Your task to perform on an android device: all mails in gmail Image 0: 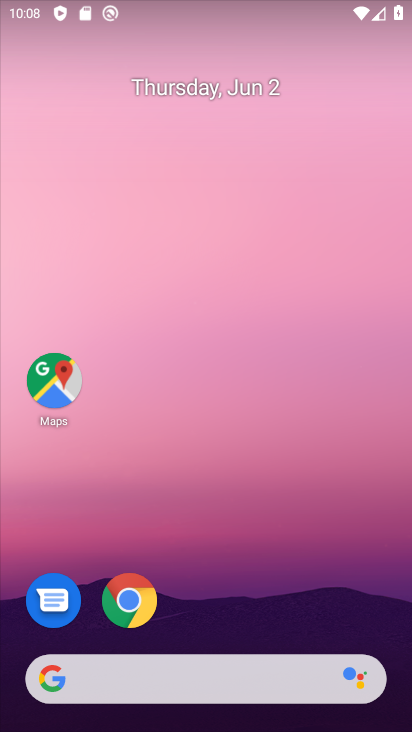
Step 0: drag from (234, 615) to (208, 90)
Your task to perform on an android device: all mails in gmail Image 1: 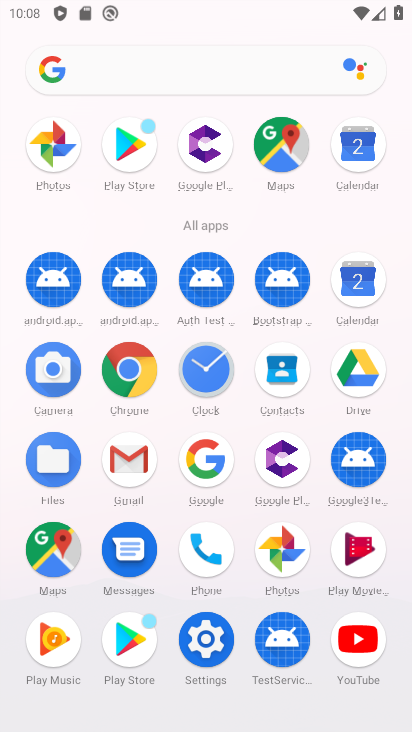
Step 1: click (129, 459)
Your task to perform on an android device: all mails in gmail Image 2: 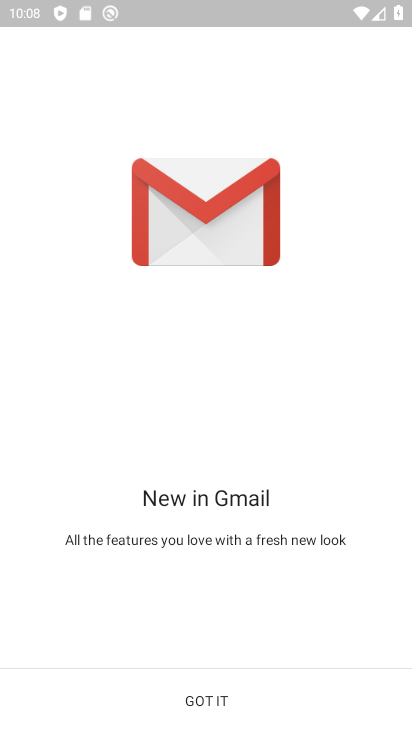
Step 2: click (208, 683)
Your task to perform on an android device: all mails in gmail Image 3: 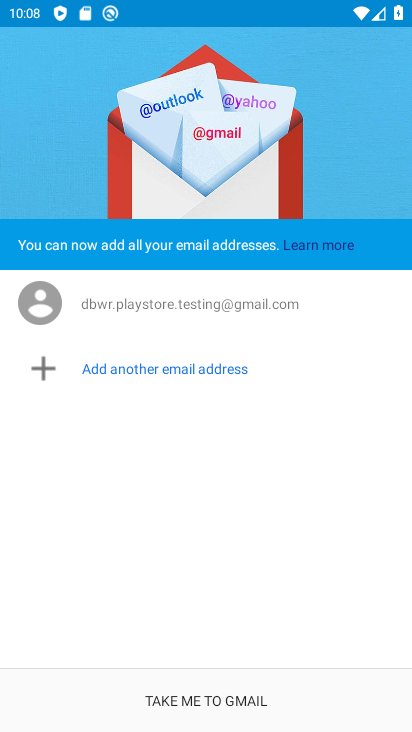
Step 3: click (209, 679)
Your task to perform on an android device: all mails in gmail Image 4: 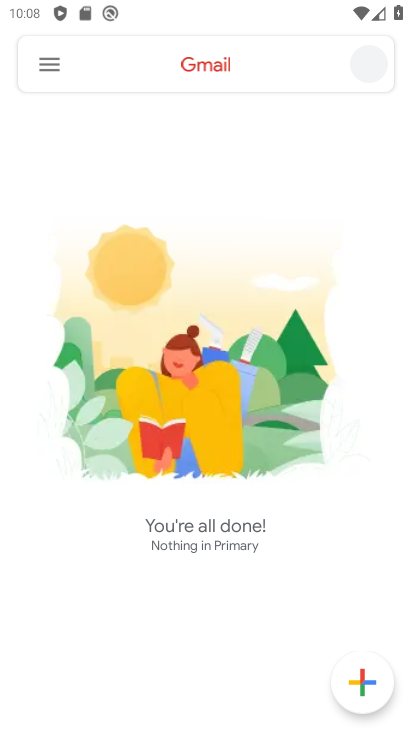
Step 4: click (45, 62)
Your task to perform on an android device: all mails in gmail Image 5: 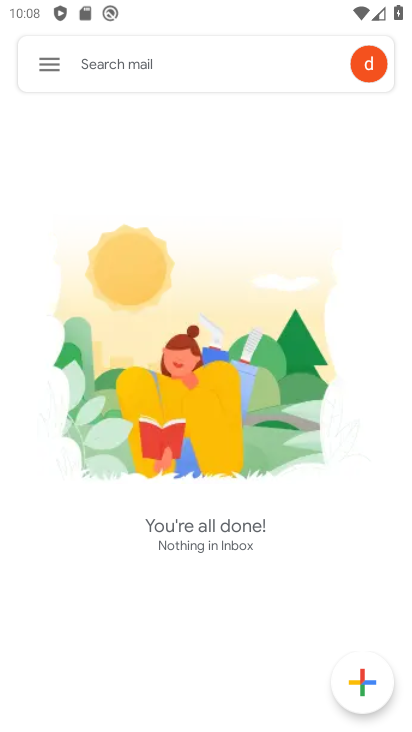
Step 5: click (44, 44)
Your task to perform on an android device: all mails in gmail Image 6: 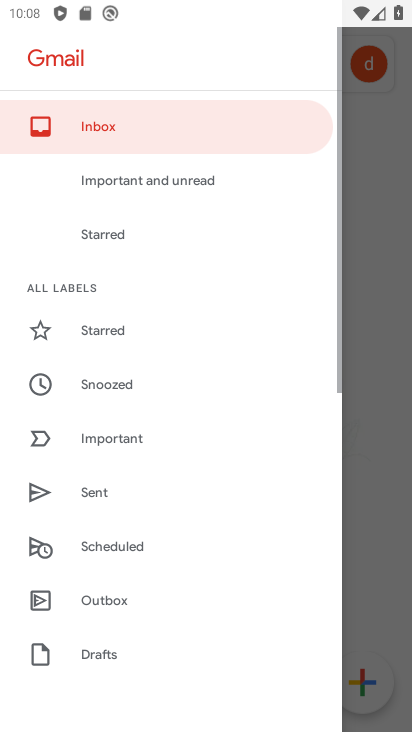
Step 6: drag from (134, 638) to (175, 99)
Your task to perform on an android device: all mails in gmail Image 7: 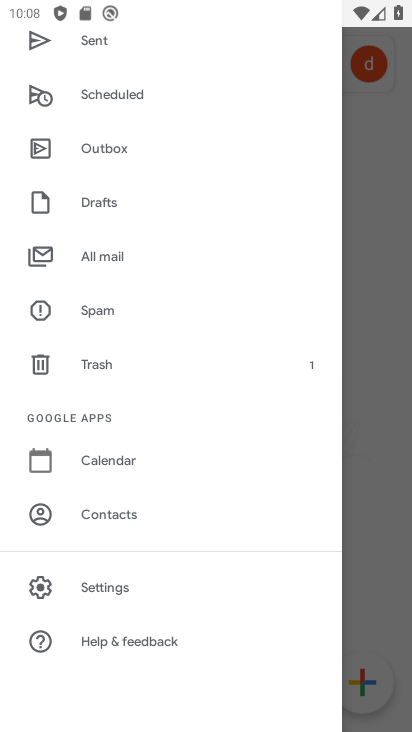
Step 7: click (127, 259)
Your task to perform on an android device: all mails in gmail Image 8: 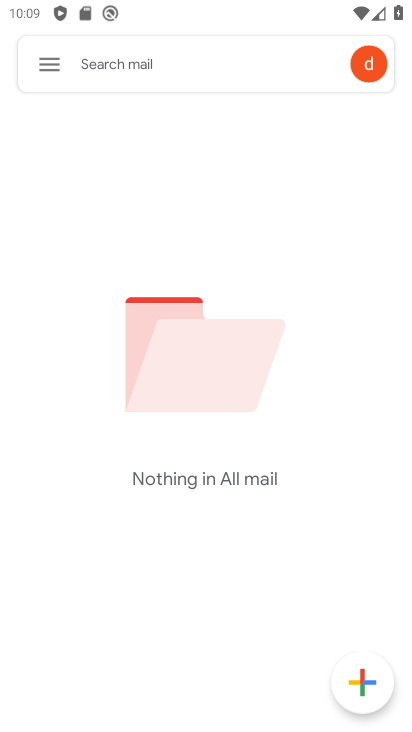
Step 8: task complete